Your task to perform on an android device: Go to calendar. Show me events next week Image 0: 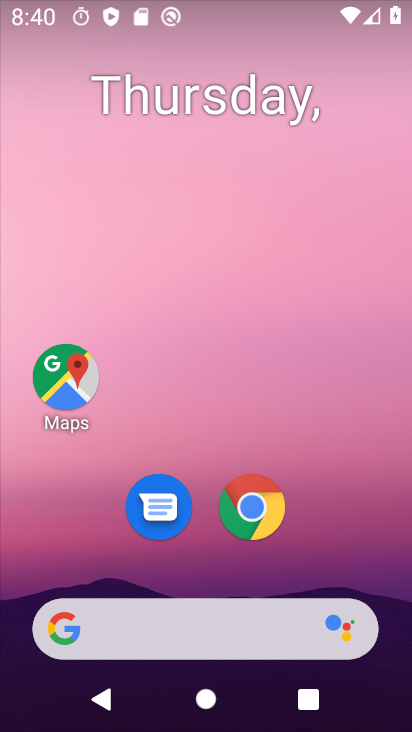
Step 0: drag from (206, 567) to (306, 43)
Your task to perform on an android device: Go to calendar. Show me events next week Image 1: 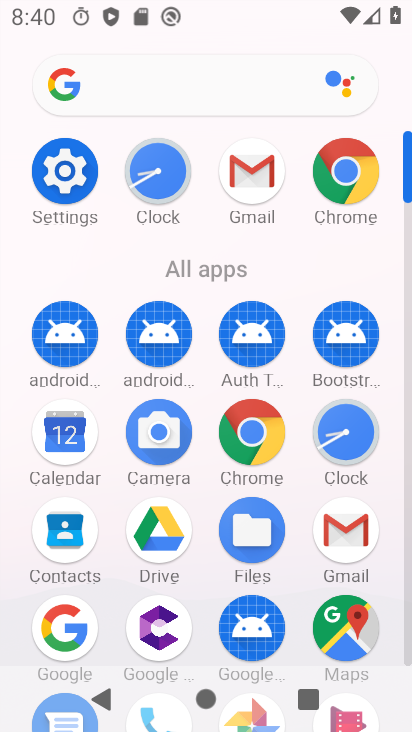
Step 1: click (69, 440)
Your task to perform on an android device: Go to calendar. Show me events next week Image 2: 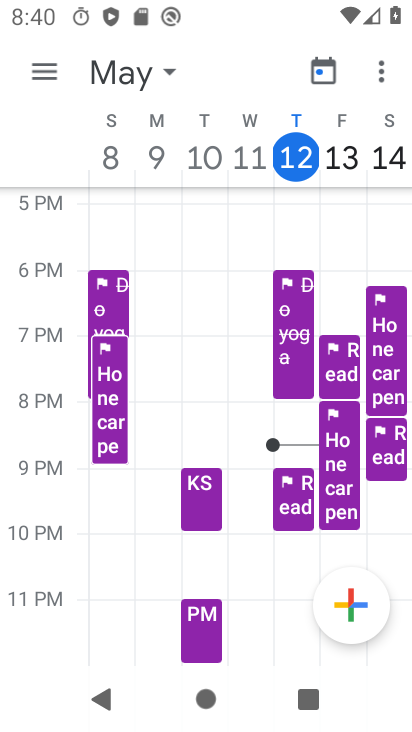
Step 2: task complete